Your task to perform on an android device: change your default location settings in chrome Image 0: 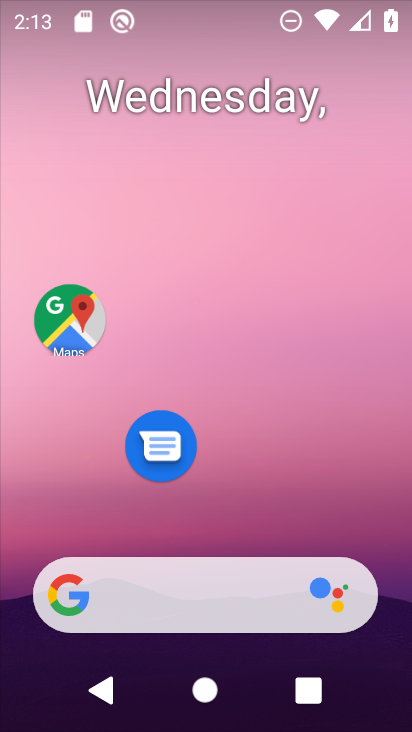
Step 0: drag from (356, 510) to (323, 110)
Your task to perform on an android device: change your default location settings in chrome Image 1: 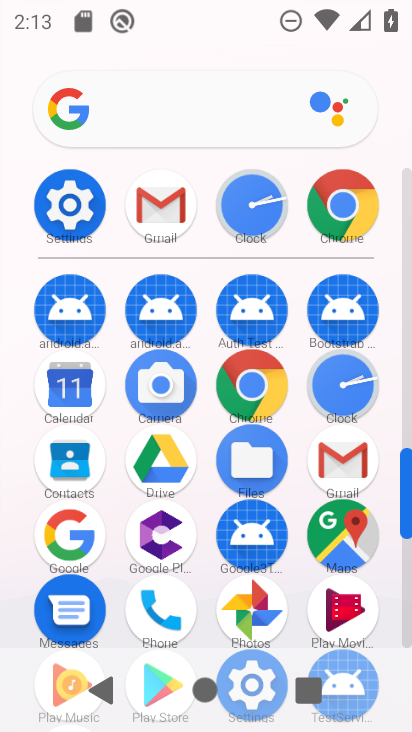
Step 1: click (352, 235)
Your task to perform on an android device: change your default location settings in chrome Image 2: 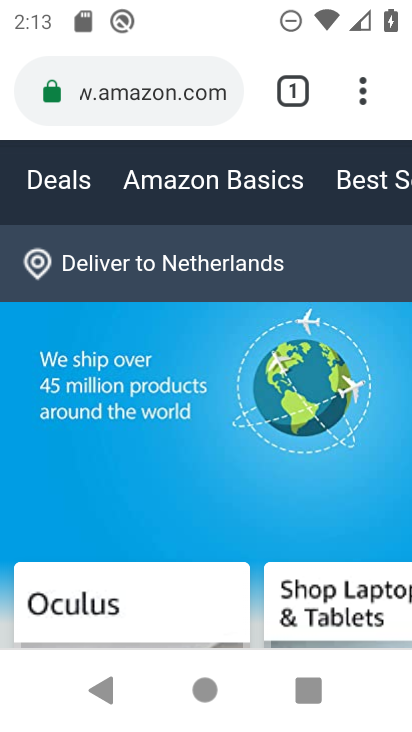
Step 2: click (376, 92)
Your task to perform on an android device: change your default location settings in chrome Image 3: 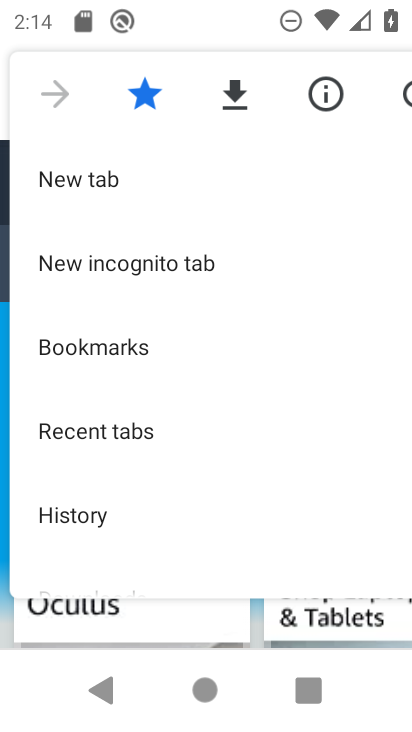
Step 3: drag from (228, 501) to (228, 216)
Your task to perform on an android device: change your default location settings in chrome Image 4: 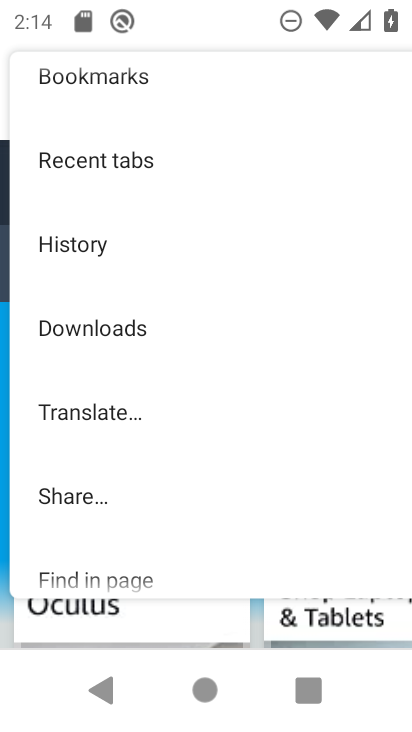
Step 4: drag from (226, 420) to (197, 137)
Your task to perform on an android device: change your default location settings in chrome Image 5: 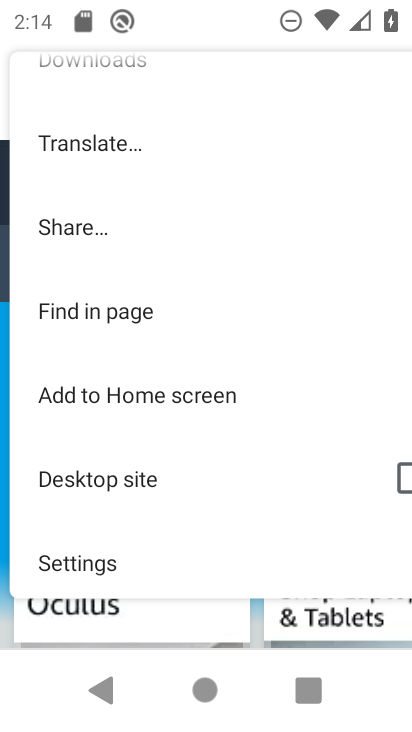
Step 5: click (41, 546)
Your task to perform on an android device: change your default location settings in chrome Image 6: 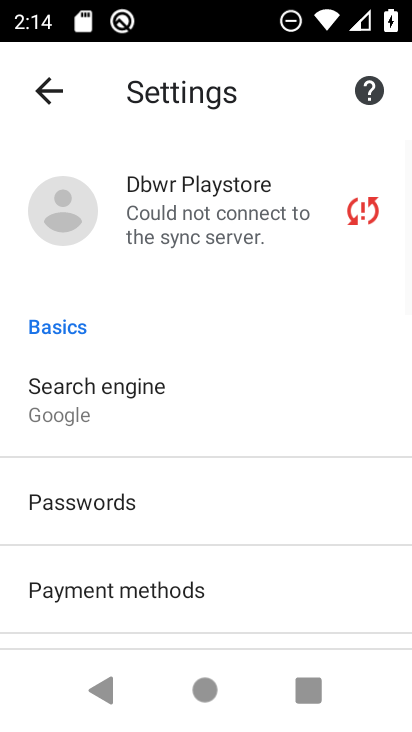
Step 6: drag from (193, 461) to (206, 271)
Your task to perform on an android device: change your default location settings in chrome Image 7: 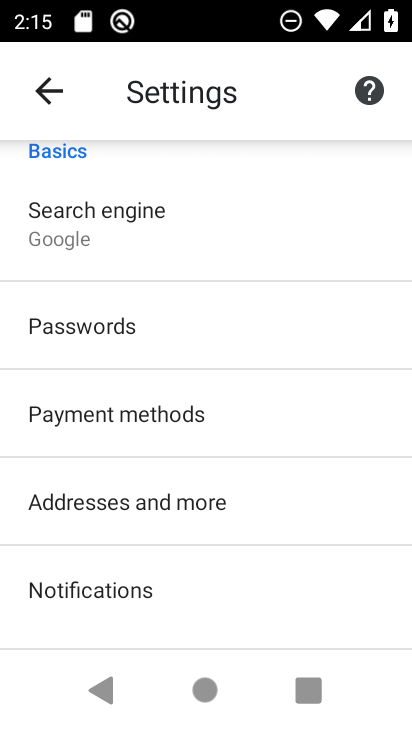
Step 7: drag from (162, 580) to (152, 335)
Your task to perform on an android device: change your default location settings in chrome Image 8: 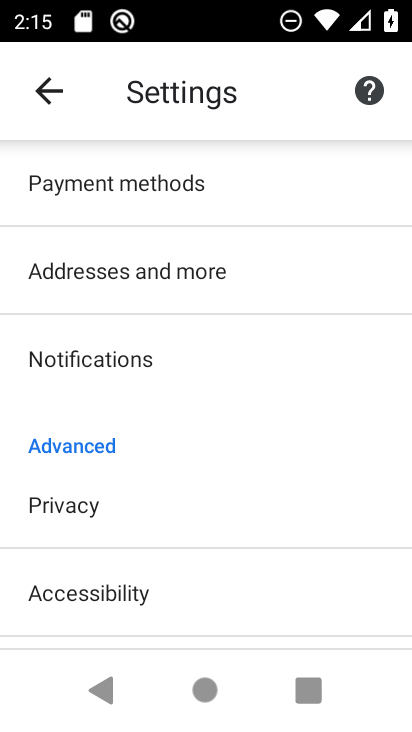
Step 8: click (148, 243)
Your task to perform on an android device: change your default location settings in chrome Image 9: 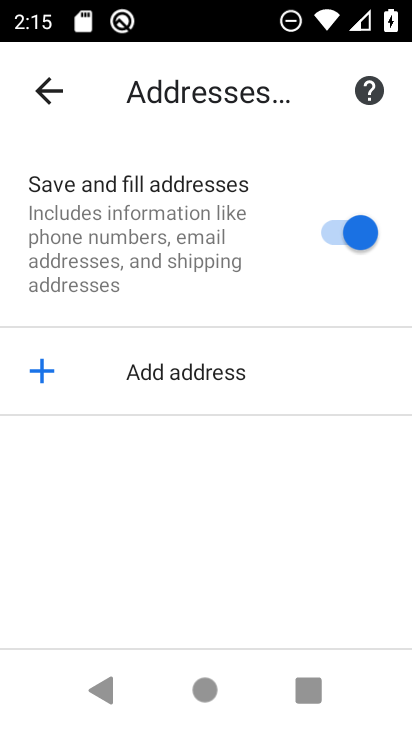
Step 9: task complete